Your task to perform on an android device: Open calendar and show me the second week of next month Image 0: 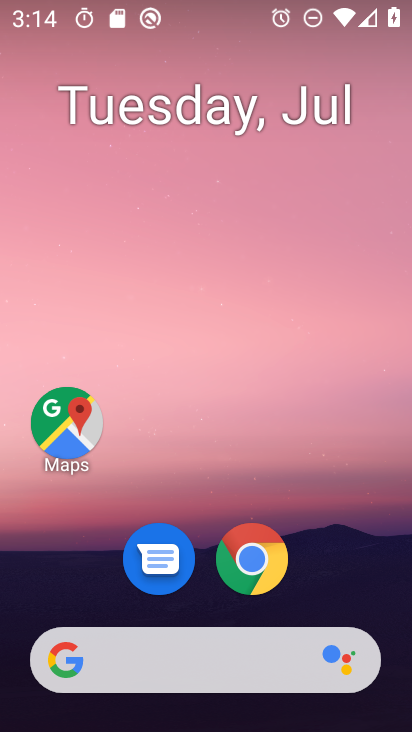
Step 0: drag from (360, 539) to (376, 227)
Your task to perform on an android device: Open calendar and show me the second week of next month Image 1: 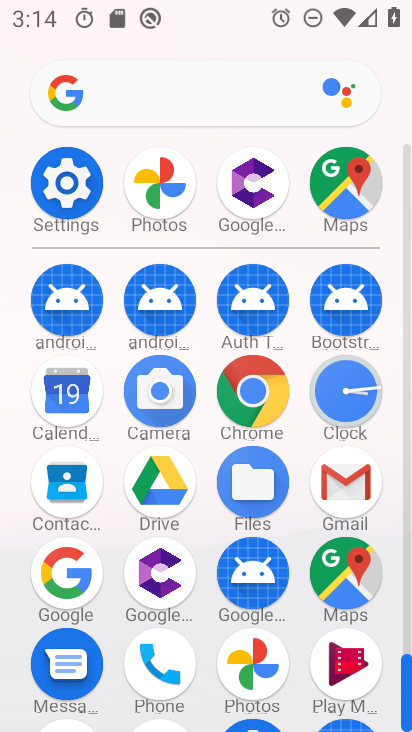
Step 1: click (69, 393)
Your task to perform on an android device: Open calendar and show me the second week of next month Image 2: 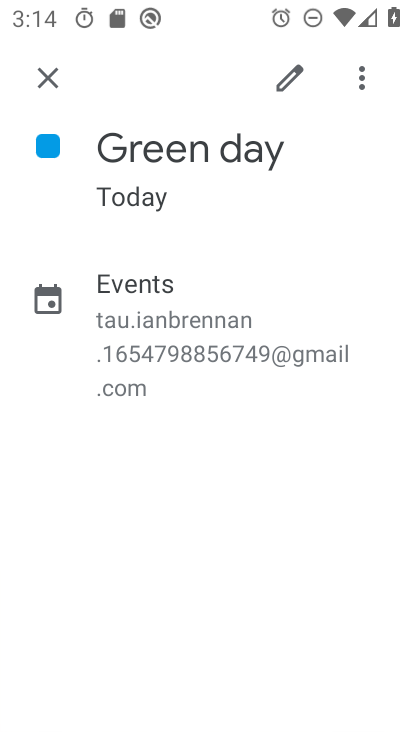
Step 2: press back button
Your task to perform on an android device: Open calendar and show me the second week of next month Image 3: 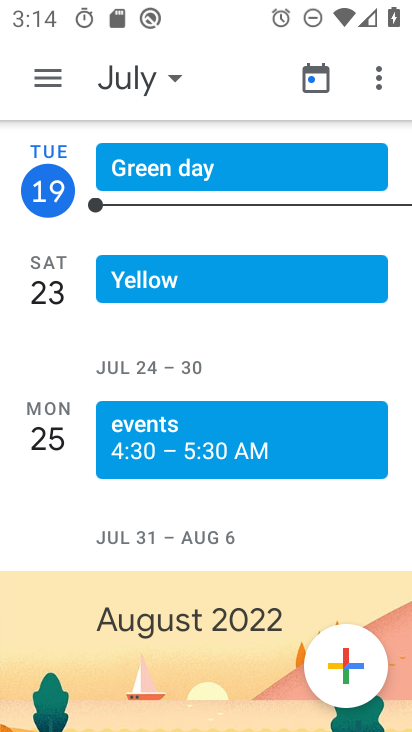
Step 3: click (185, 81)
Your task to perform on an android device: Open calendar and show me the second week of next month Image 4: 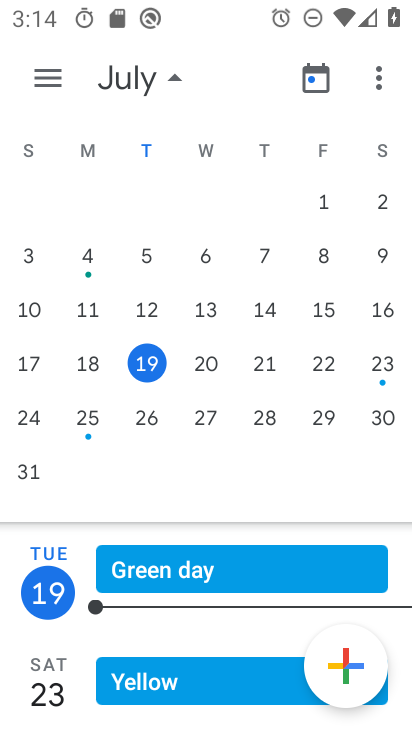
Step 4: drag from (385, 227) to (40, 213)
Your task to perform on an android device: Open calendar and show me the second week of next month Image 5: 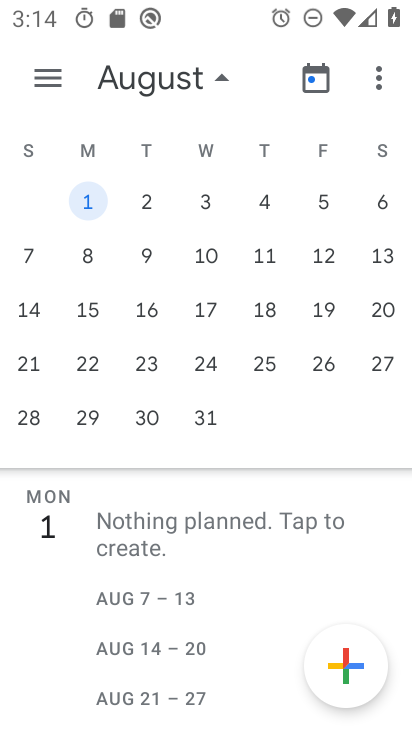
Step 5: click (88, 252)
Your task to perform on an android device: Open calendar and show me the second week of next month Image 6: 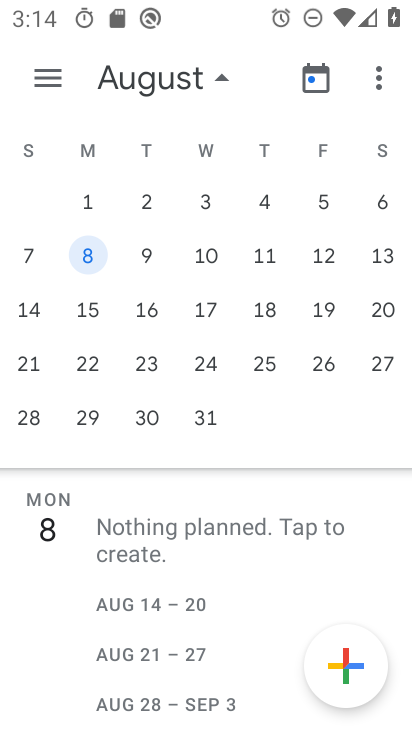
Step 6: task complete